Your task to perform on an android device: Go to Amazon Image 0: 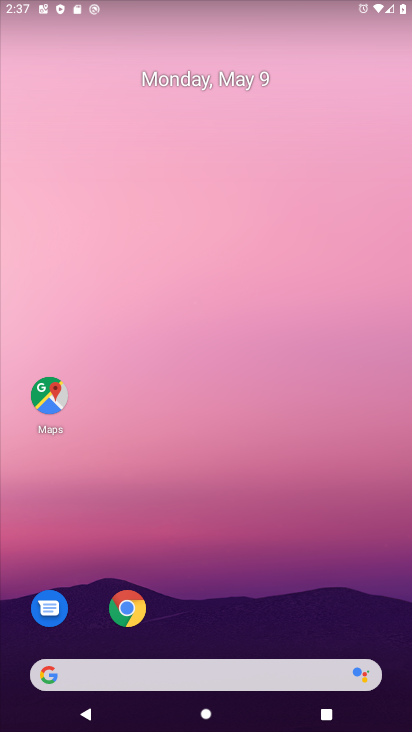
Step 0: click (136, 614)
Your task to perform on an android device: Go to Amazon Image 1: 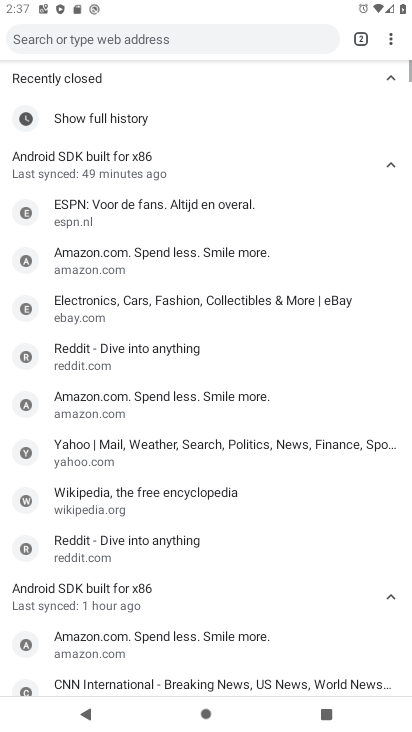
Step 1: click (365, 41)
Your task to perform on an android device: Go to Amazon Image 2: 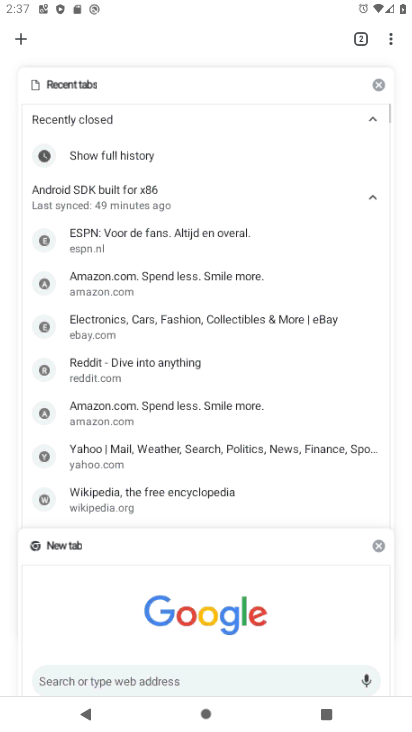
Step 2: click (26, 48)
Your task to perform on an android device: Go to Amazon Image 3: 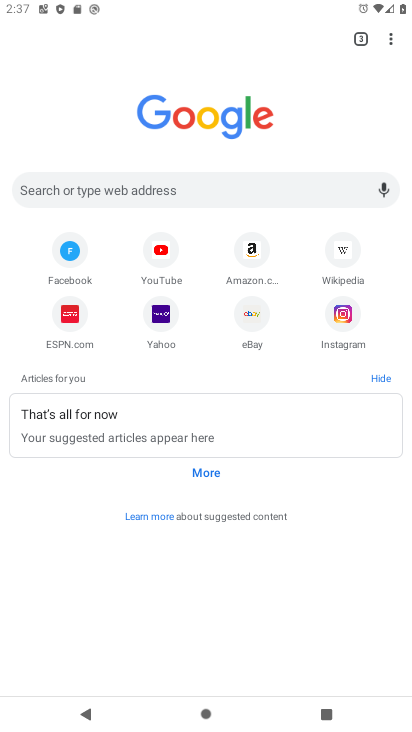
Step 3: click (244, 254)
Your task to perform on an android device: Go to Amazon Image 4: 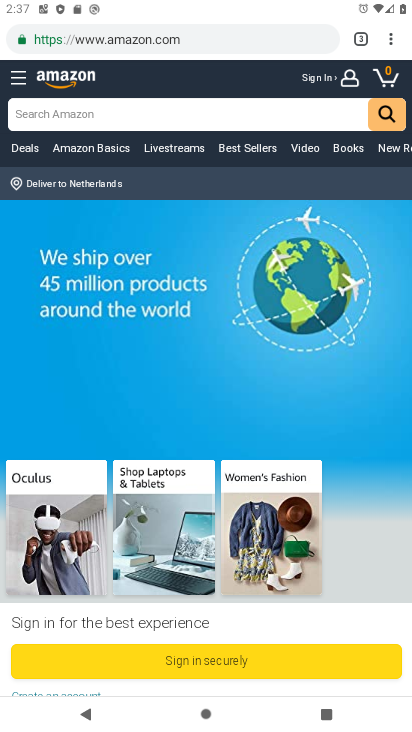
Step 4: task complete